Your task to perform on an android device: Search for "logitech g910" on bestbuy, select the first entry, add it to the cart, then select checkout. Image 0: 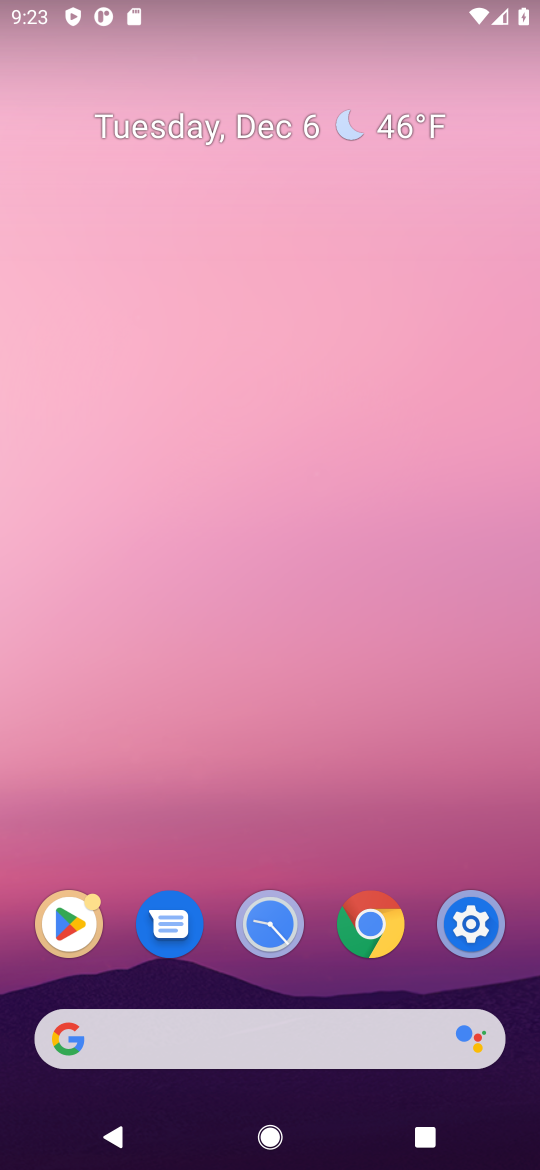
Step 0: click (285, 1049)
Your task to perform on an android device: Search for "logitech g910" on bestbuy, select the first entry, add it to the cart, then select checkout. Image 1: 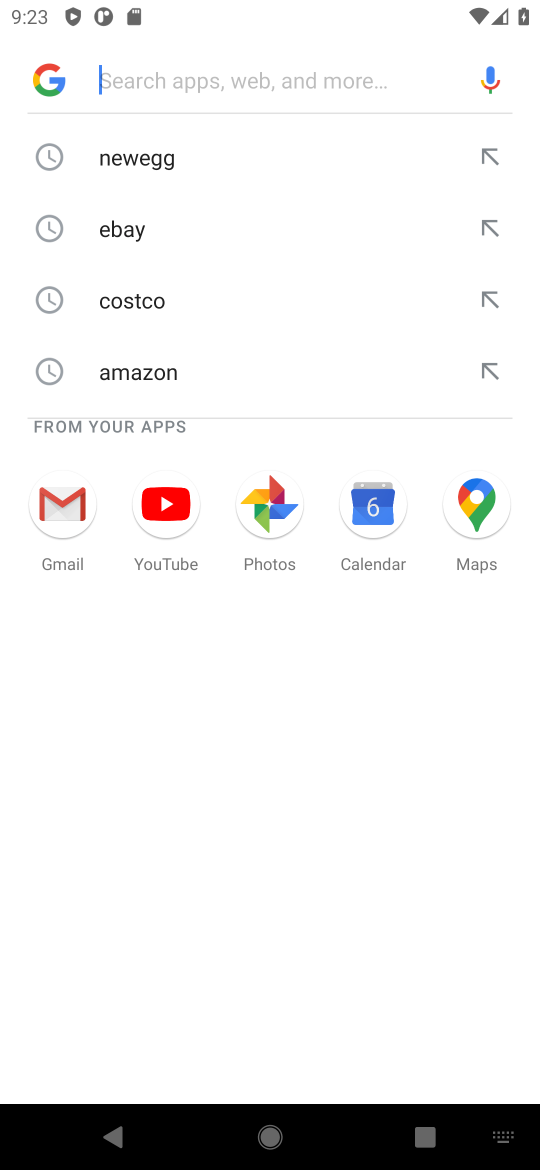
Step 1: type "bestbuy"
Your task to perform on an android device: Search for "logitech g910" on bestbuy, select the first entry, add it to the cart, then select checkout. Image 2: 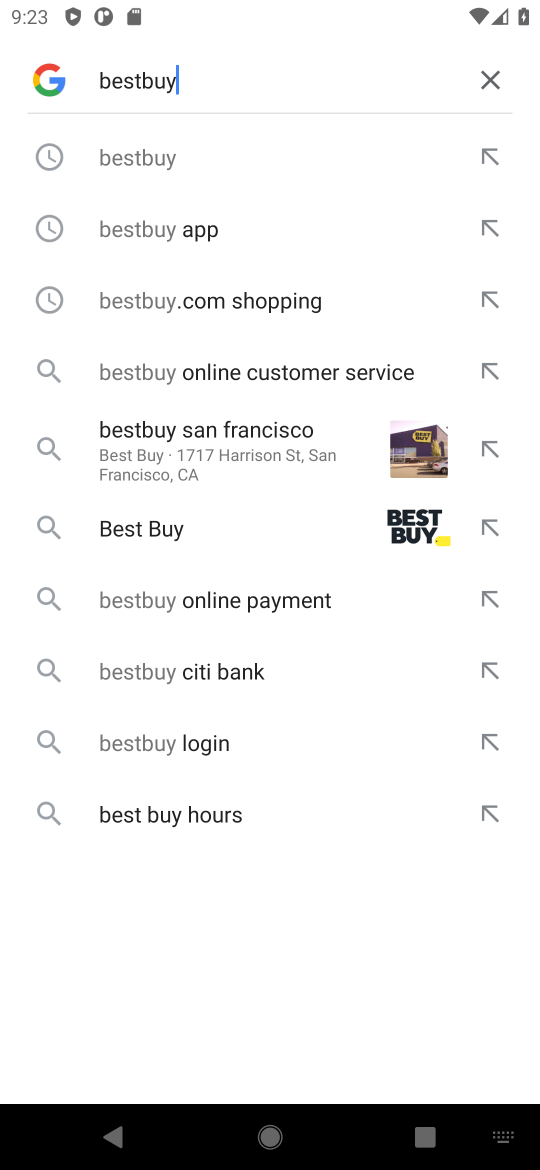
Step 2: click (139, 175)
Your task to perform on an android device: Search for "logitech g910" on bestbuy, select the first entry, add it to the cart, then select checkout. Image 3: 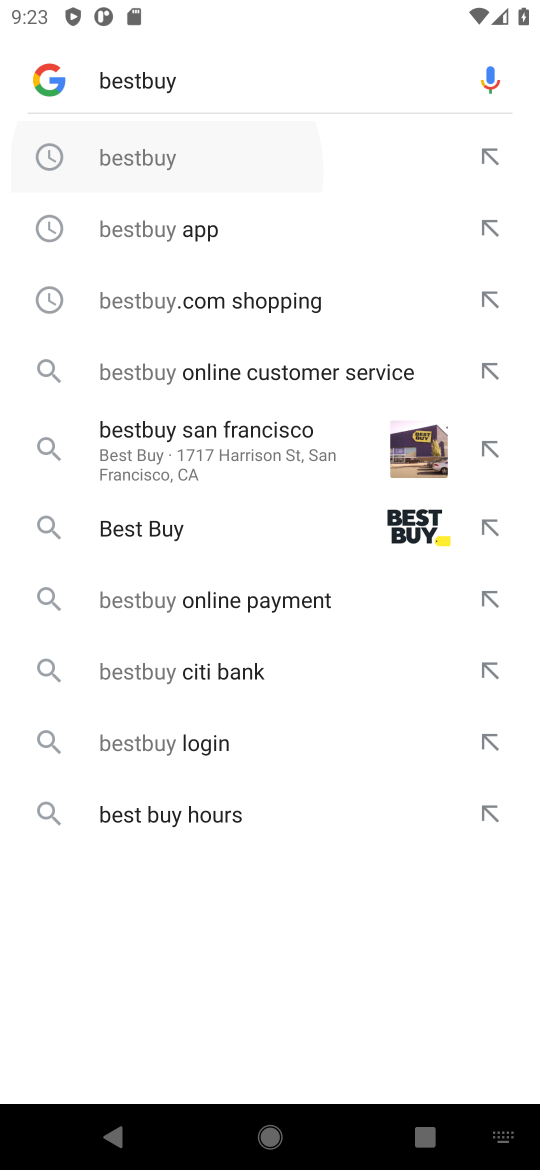
Step 3: click (139, 175)
Your task to perform on an android device: Search for "logitech g910" on bestbuy, select the first entry, add it to the cart, then select checkout. Image 4: 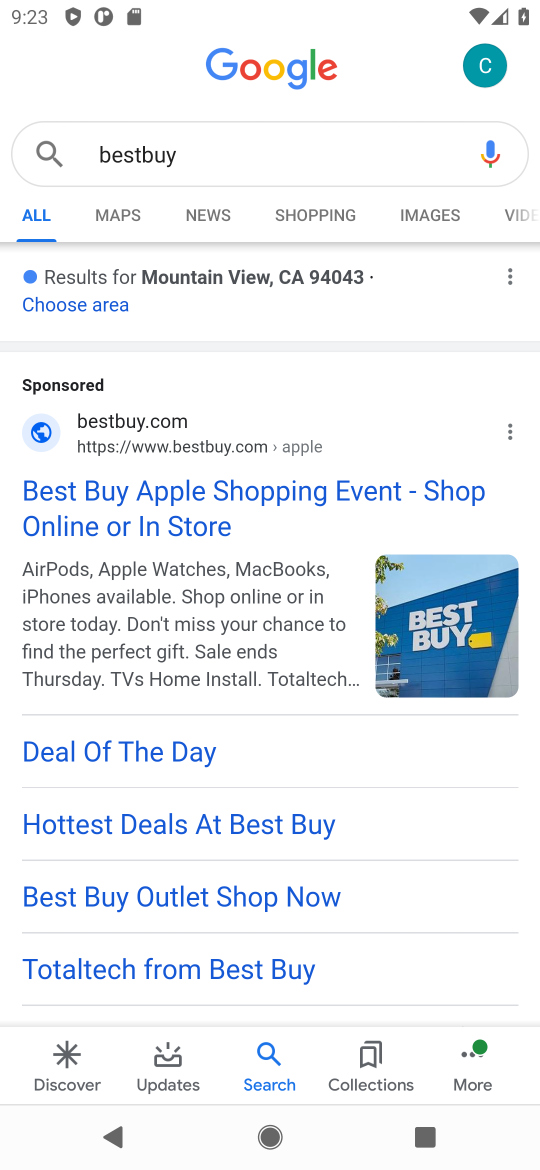
Step 4: click (192, 491)
Your task to perform on an android device: Search for "logitech g910" on bestbuy, select the first entry, add it to the cart, then select checkout. Image 5: 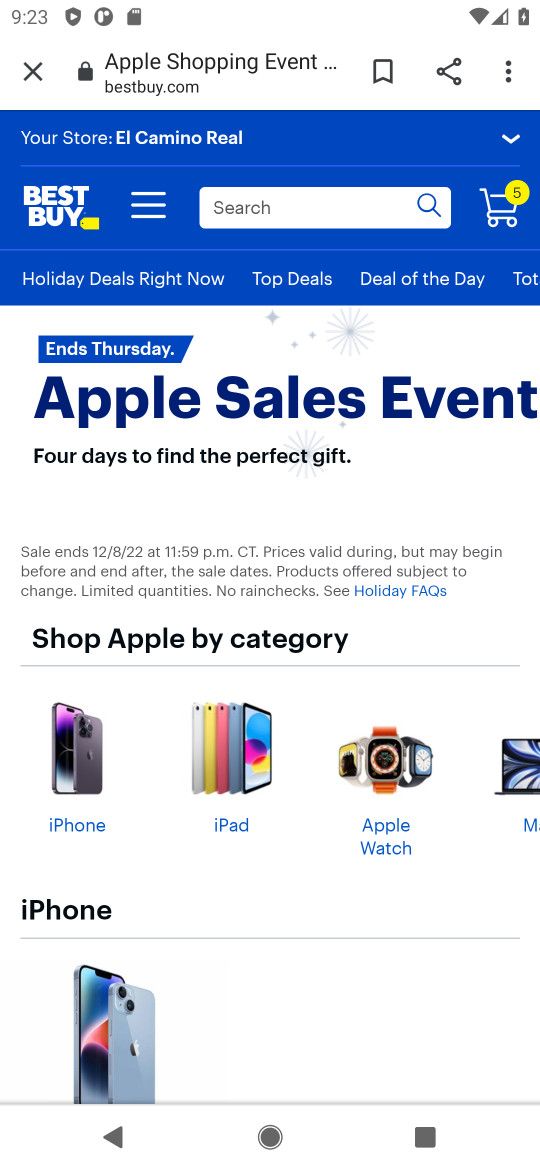
Step 5: click (277, 209)
Your task to perform on an android device: Search for "logitech g910" on bestbuy, select the first entry, add it to the cart, then select checkout. Image 6: 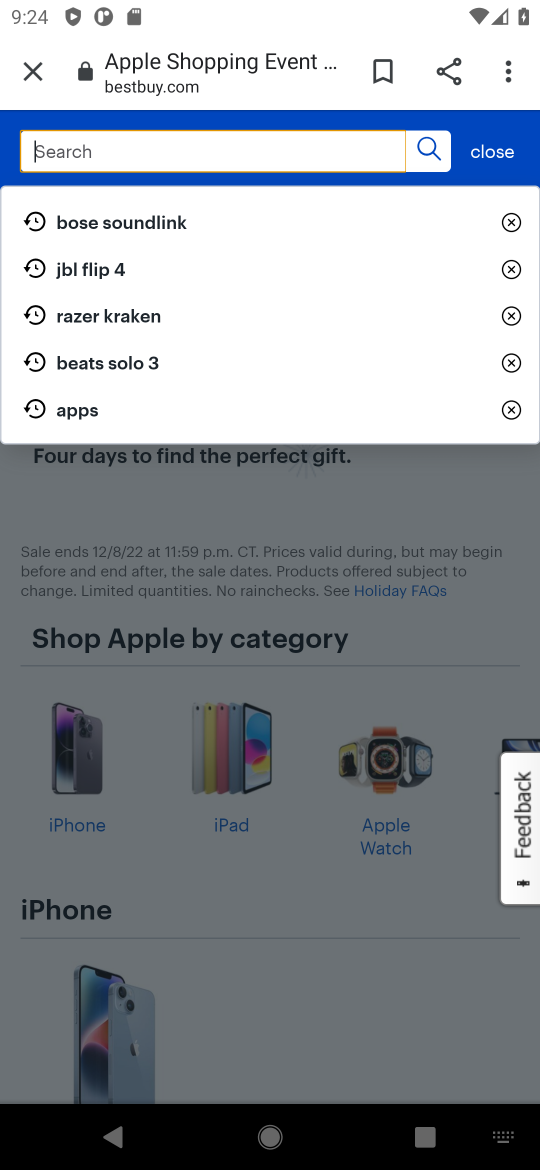
Step 6: type "logitech g910"
Your task to perform on an android device: Search for "logitech g910" on bestbuy, select the first entry, add it to the cart, then select checkout. Image 7: 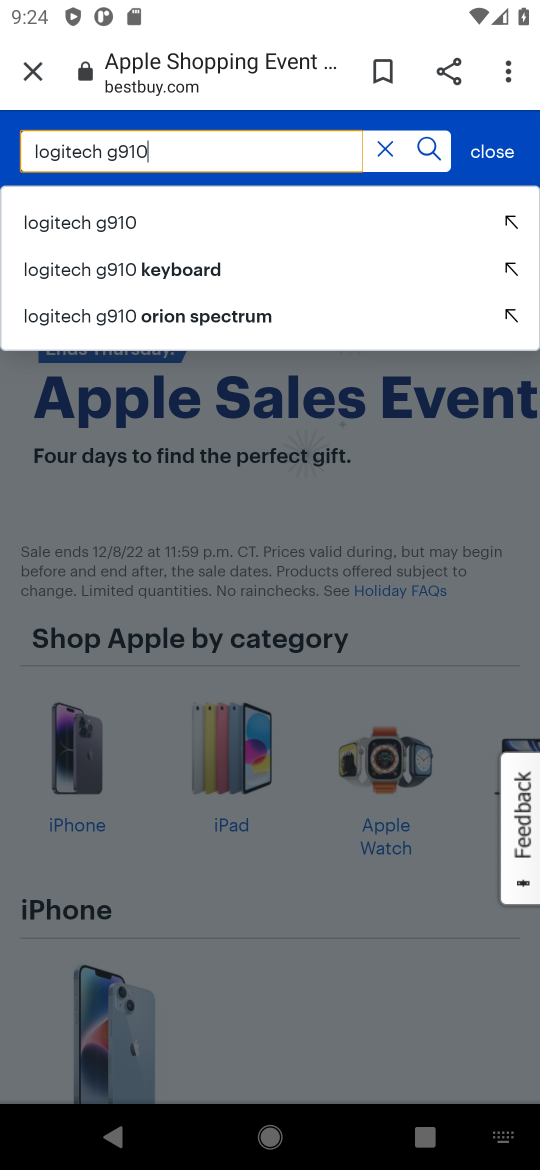
Step 7: click (25, 213)
Your task to perform on an android device: Search for "logitech g910" on bestbuy, select the first entry, add it to the cart, then select checkout. Image 8: 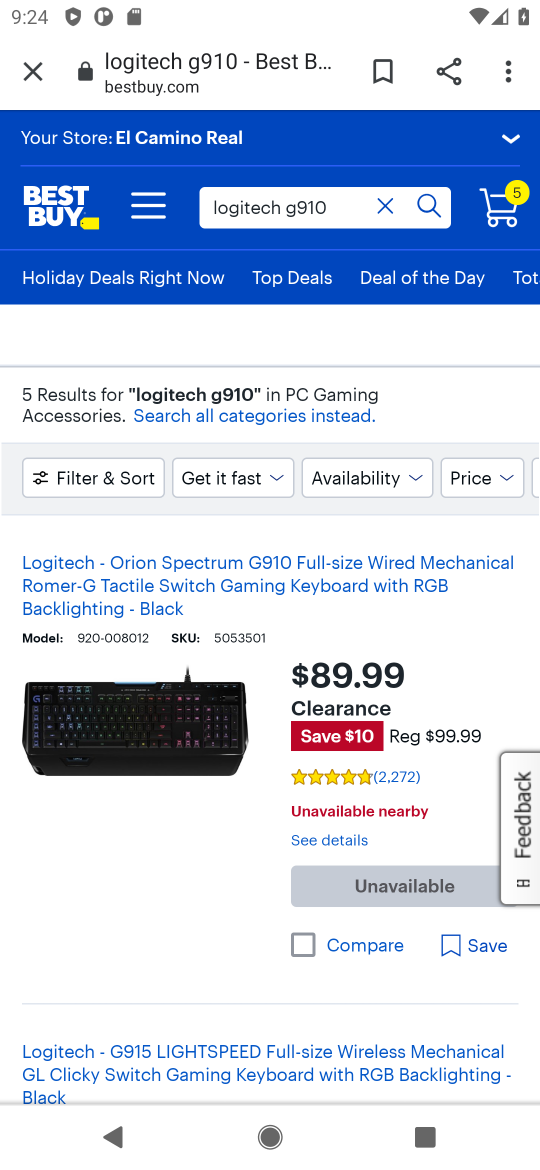
Step 8: task complete